Your task to perform on an android device: empty trash in the gmail app Image 0: 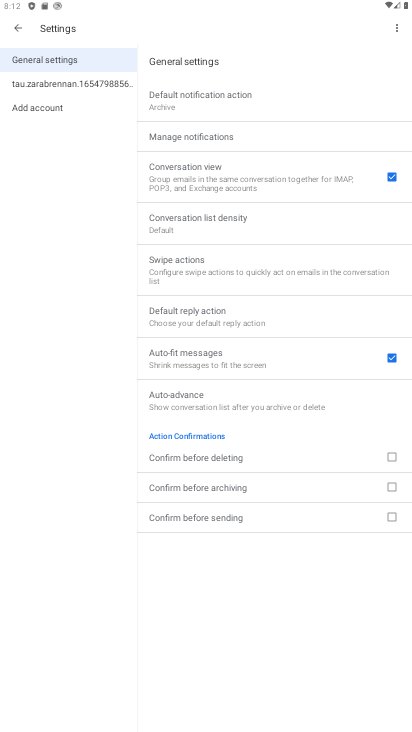
Step 0: press home button
Your task to perform on an android device: empty trash in the gmail app Image 1: 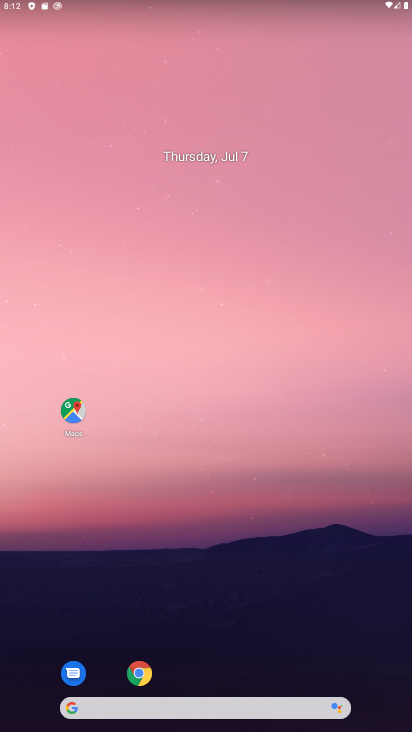
Step 1: drag from (228, 696) to (273, 14)
Your task to perform on an android device: empty trash in the gmail app Image 2: 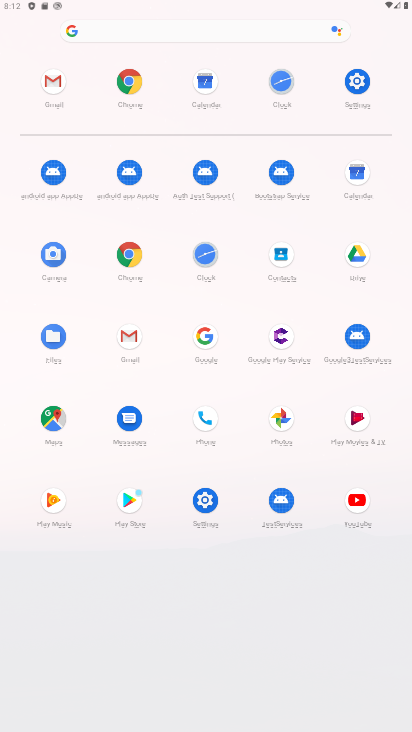
Step 2: click (123, 349)
Your task to perform on an android device: empty trash in the gmail app Image 3: 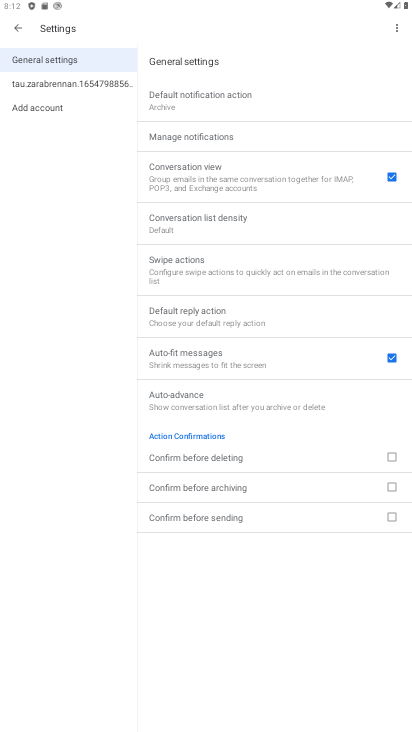
Step 3: click (11, 30)
Your task to perform on an android device: empty trash in the gmail app Image 4: 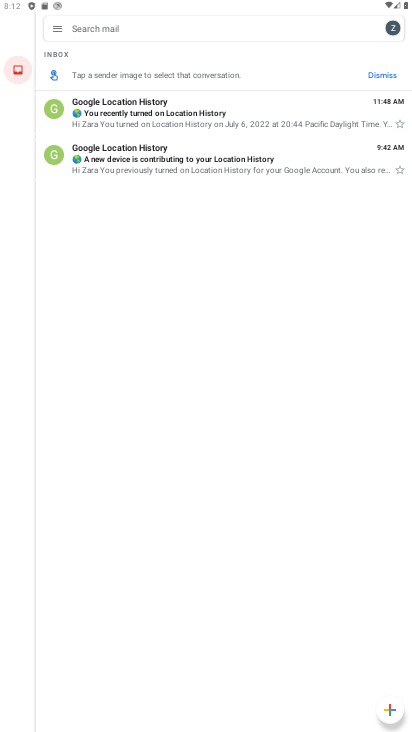
Step 4: click (55, 28)
Your task to perform on an android device: empty trash in the gmail app Image 5: 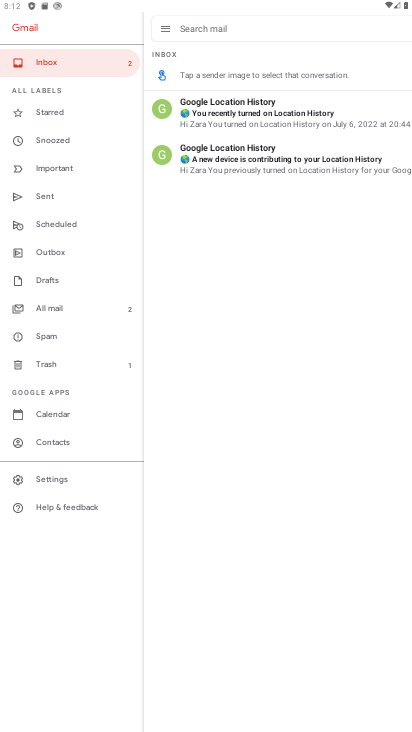
Step 5: click (51, 365)
Your task to perform on an android device: empty trash in the gmail app Image 6: 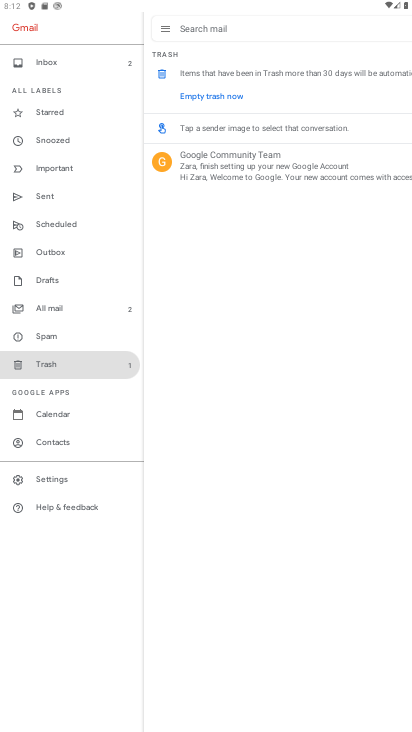
Step 6: click (197, 98)
Your task to perform on an android device: empty trash in the gmail app Image 7: 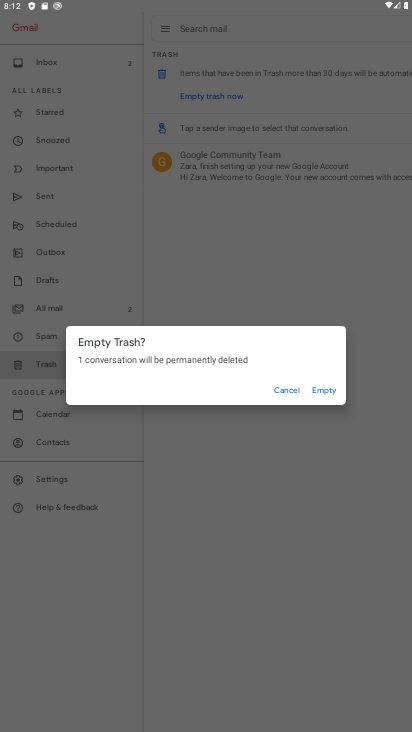
Step 7: click (327, 391)
Your task to perform on an android device: empty trash in the gmail app Image 8: 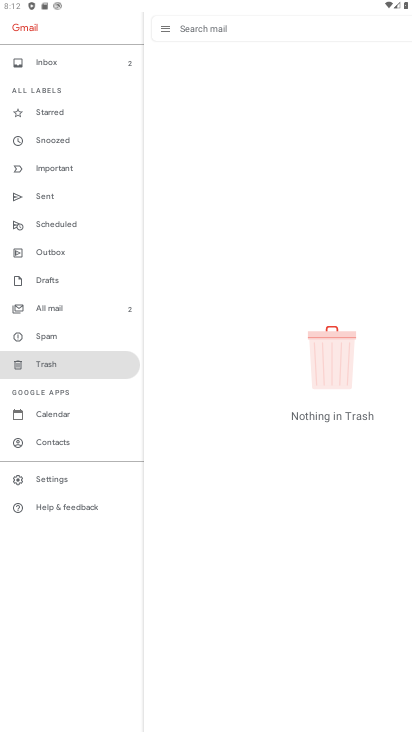
Step 8: task complete